Your task to perform on an android device: What's the weather today? Image 0: 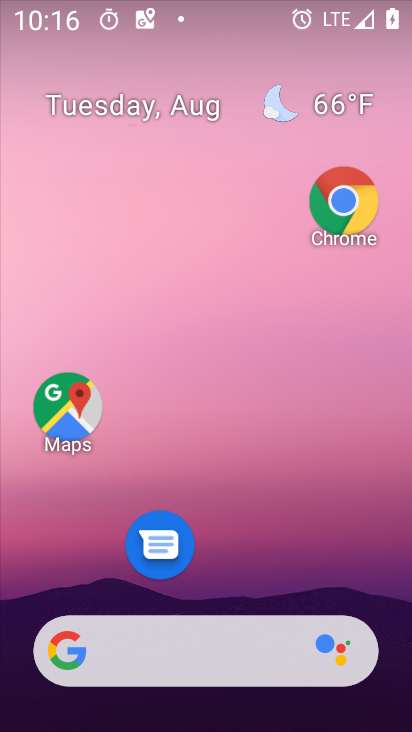
Step 0: drag from (257, 532) to (282, 85)
Your task to perform on an android device: What's the weather today? Image 1: 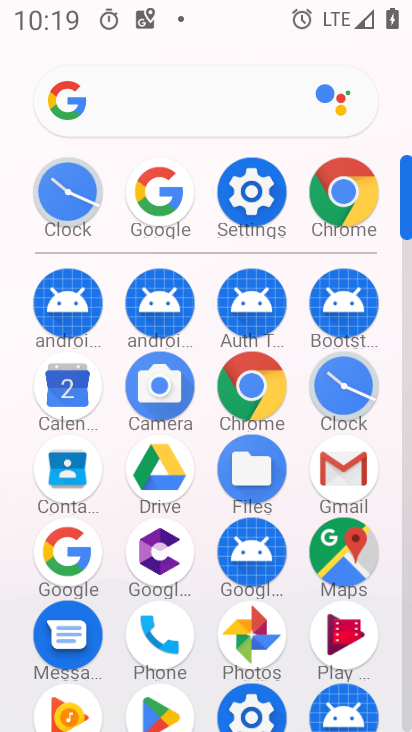
Step 1: drag from (227, 548) to (229, 41)
Your task to perform on an android device: What's the weather today? Image 2: 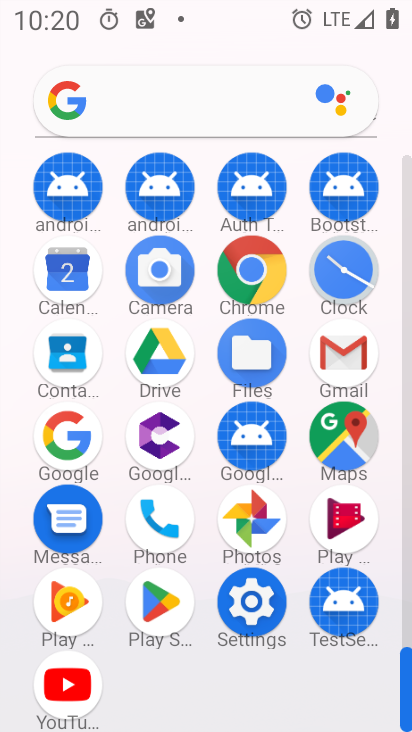
Step 2: click (84, 443)
Your task to perform on an android device: What's the weather today? Image 3: 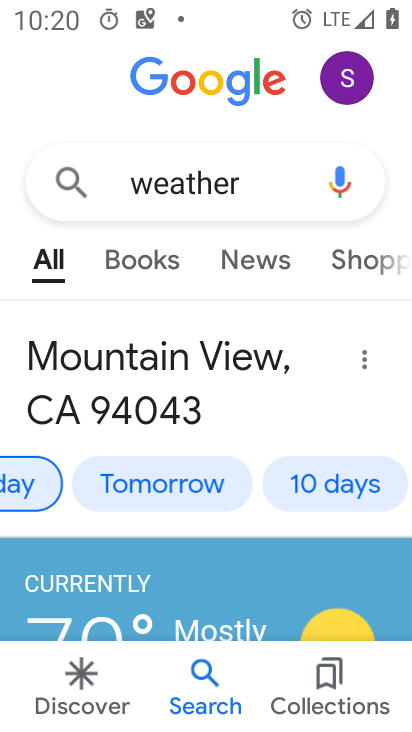
Step 3: task complete